Your task to perform on an android device: Check the news Image 0: 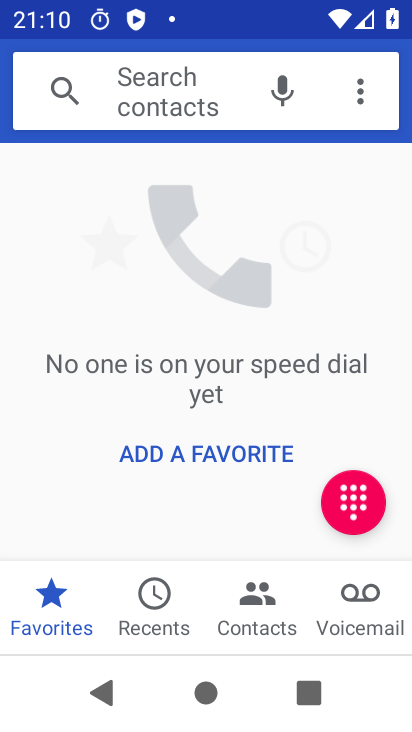
Step 0: press home button
Your task to perform on an android device: Check the news Image 1: 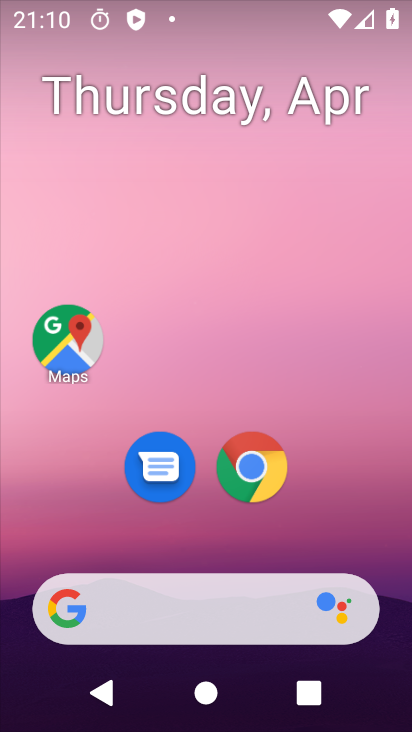
Step 1: drag from (18, 144) to (407, 195)
Your task to perform on an android device: Check the news Image 2: 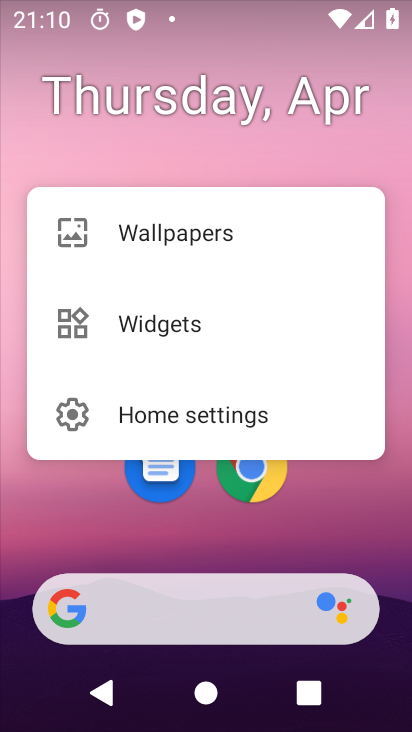
Step 2: click (83, 517)
Your task to perform on an android device: Check the news Image 3: 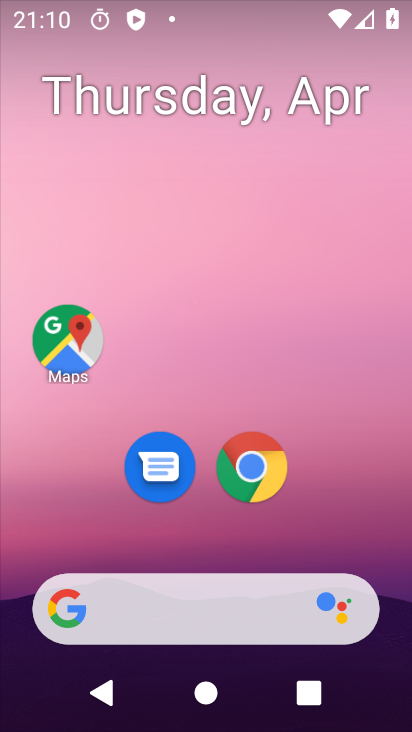
Step 3: drag from (10, 502) to (411, 522)
Your task to perform on an android device: Check the news Image 4: 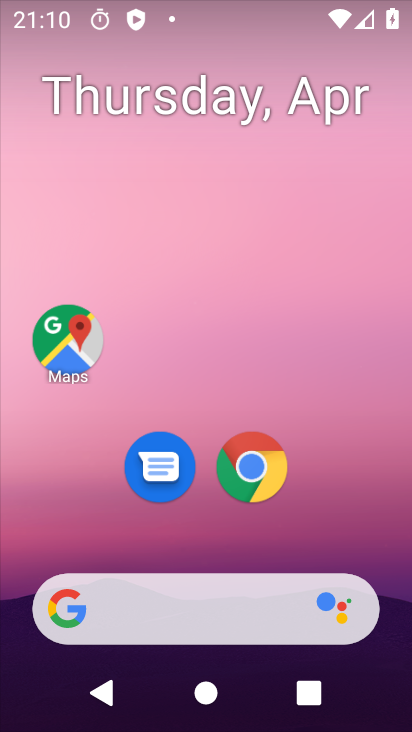
Step 4: drag from (22, 149) to (408, 208)
Your task to perform on an android device: Check the news Image 5: 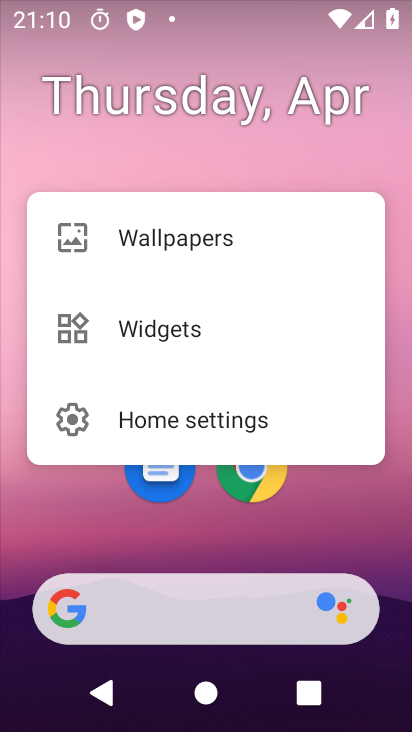
Step 5: click (208, 136)
Your task to perform on an android device: Check the news Image 6: 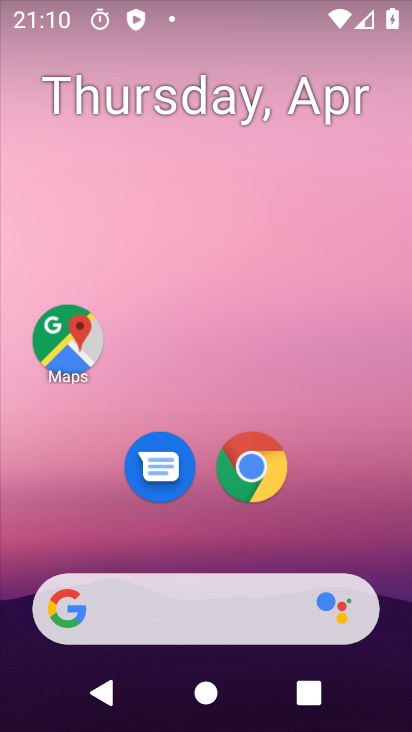
Step 6: task complete